Your task to perform on an android device: Show me recent news Image 0: 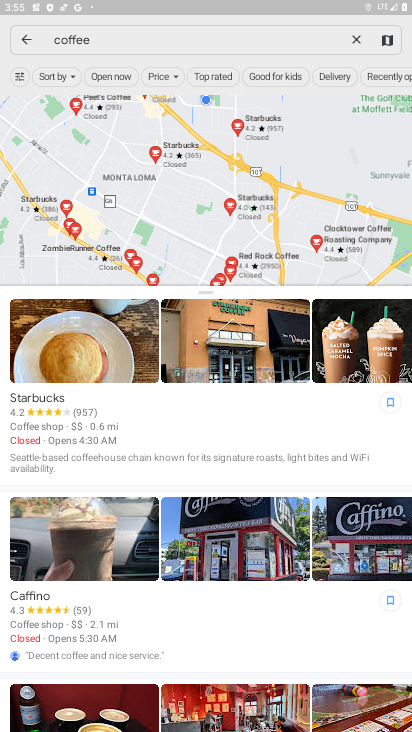
Step 0: press home button
Your task to perform on an android device: Show me recent news Image 1: 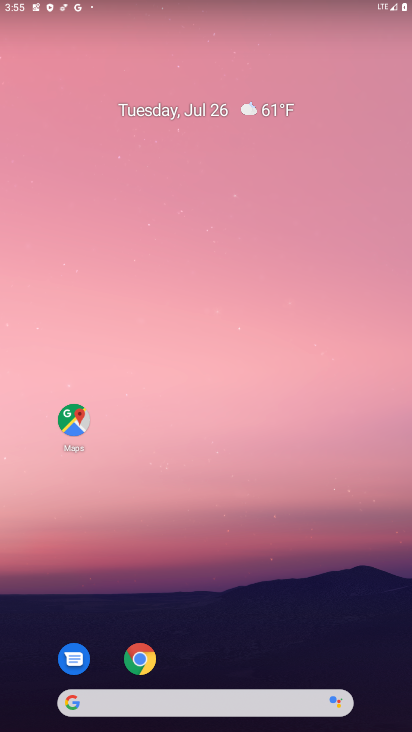
Step 1: drag from (274, 567) to (251, 110)
Your task to perform on an android device: Show me recent news Image 2: 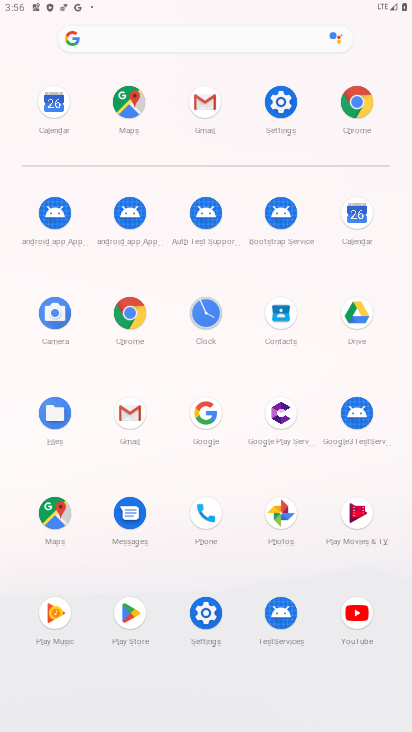
Step 2: click (359, 103)
Your task to perform on an android device: Show me recent news Image 3: 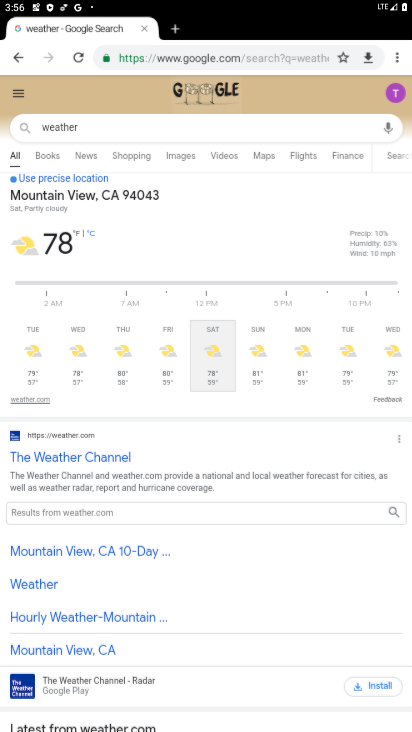
Step 3: click (201, 53)
Your task to perform on an android device: Show me recent news Image 4: 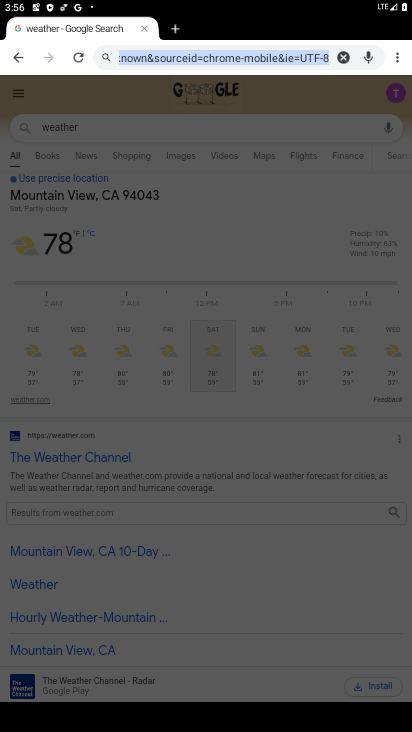
Step 4: type "news"
Your task to perform on an android device: Show me recent news Image 5: 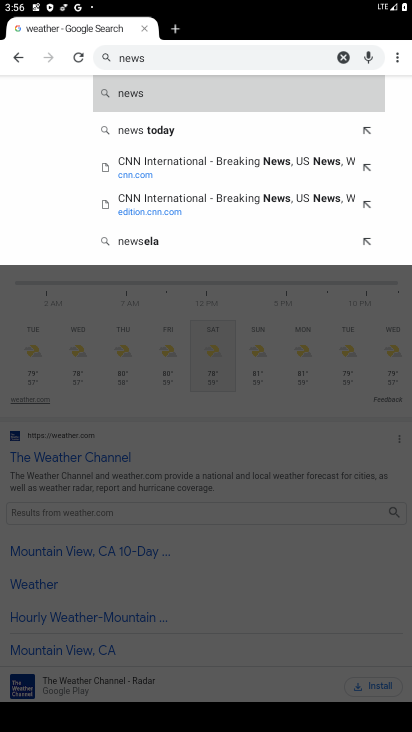
Step 5: click (186, 101)
Your task to perform on an android device: Show me recent news Image 6: 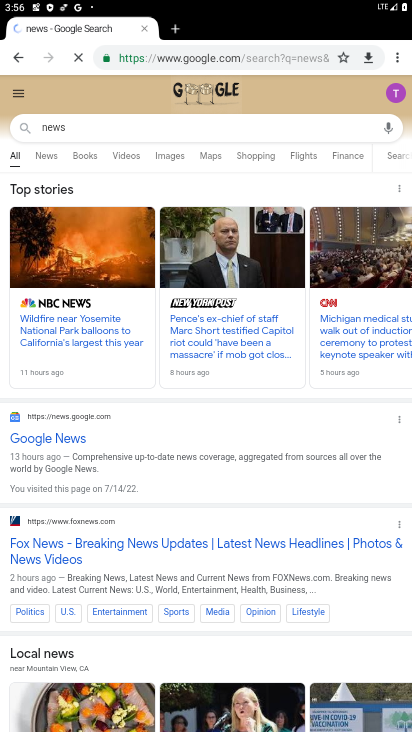
Step 6: click (63, 426)
Your task to perform on an android device: Show me recent news Image 7: 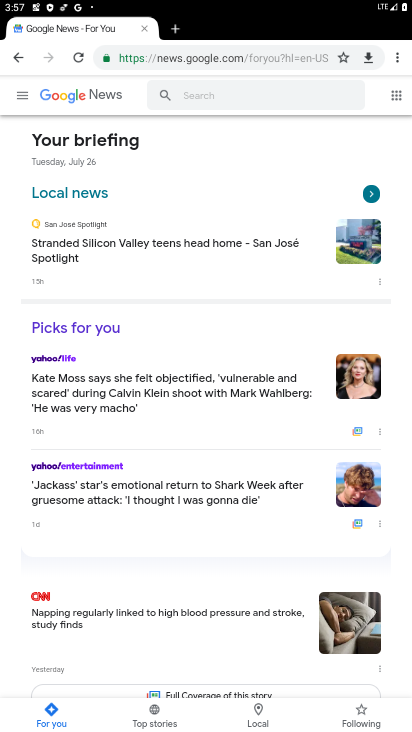
Step 7: task complete